Your task to perform on an android device: check battery use Image 0: 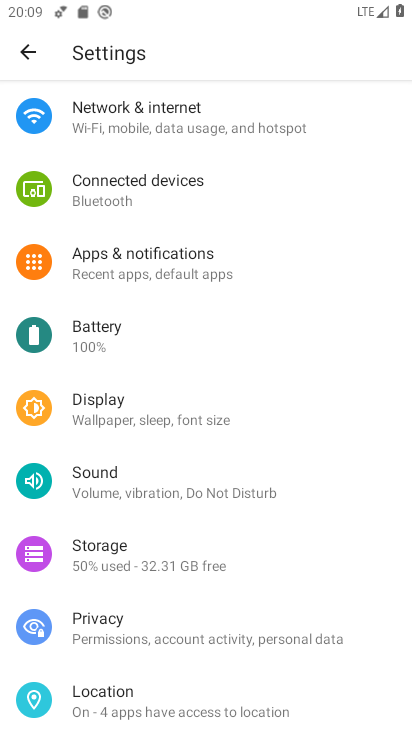
Step 0: click (128, 326)
Your task to perform on an android device: check battery use Image 1: 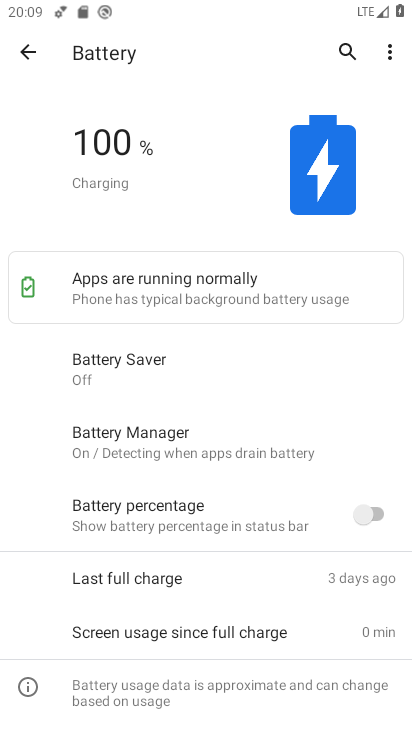
Step 1: drag from (238, 597) to (261, 174)
Your task to perform on an android device: check battery use Image 2: 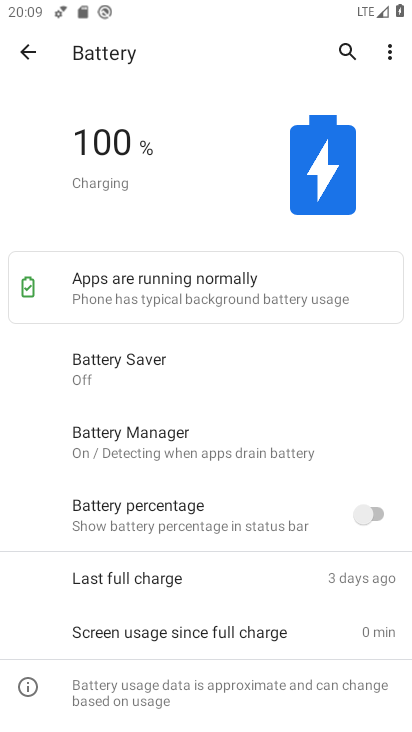
Step 2: click (380, 56)
Your task to perform on an android device: check battery use Image 3: 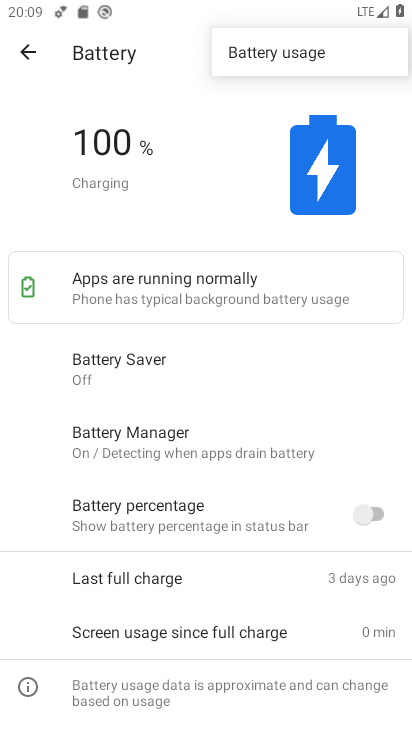
Step 3: click (264, 54)
Your task to perform on an android device: check battery use Image 4: 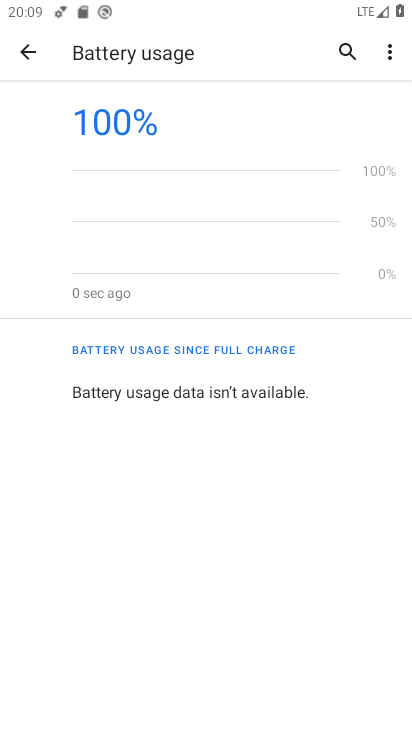
Step 4: drag from (195, 515) to (275, 218)
Your task to perform on an android device: check battery use Image 5: 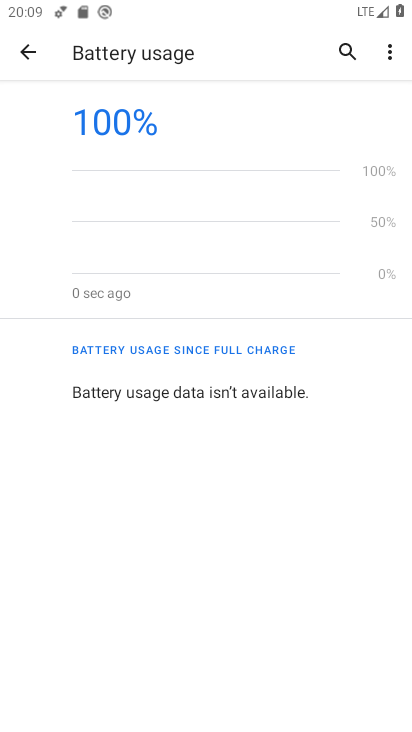
Step 5: click (386, 42)
Your task to perform on an android device: check battery use Image 6: 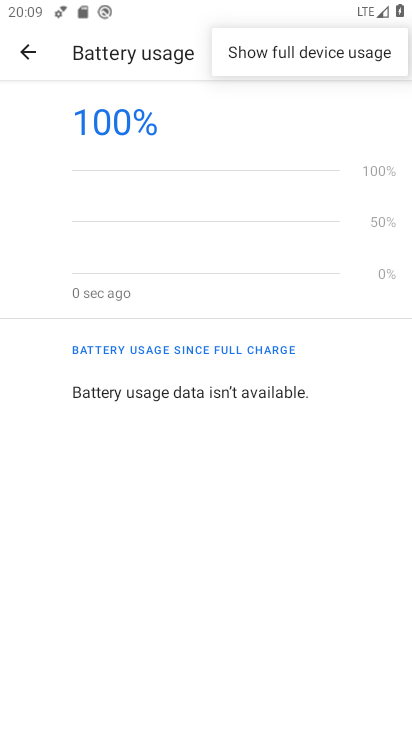
Step 6: click (198, 182)
Your task to perform on an android device: check battery use Image 7: 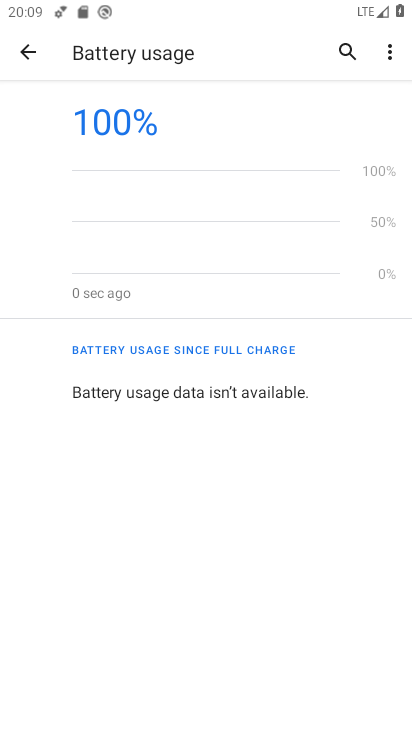
Step 7: task complete